Your task to perform on an android device: open app "Indeed Job Search" (install if not already installed) Image 0: 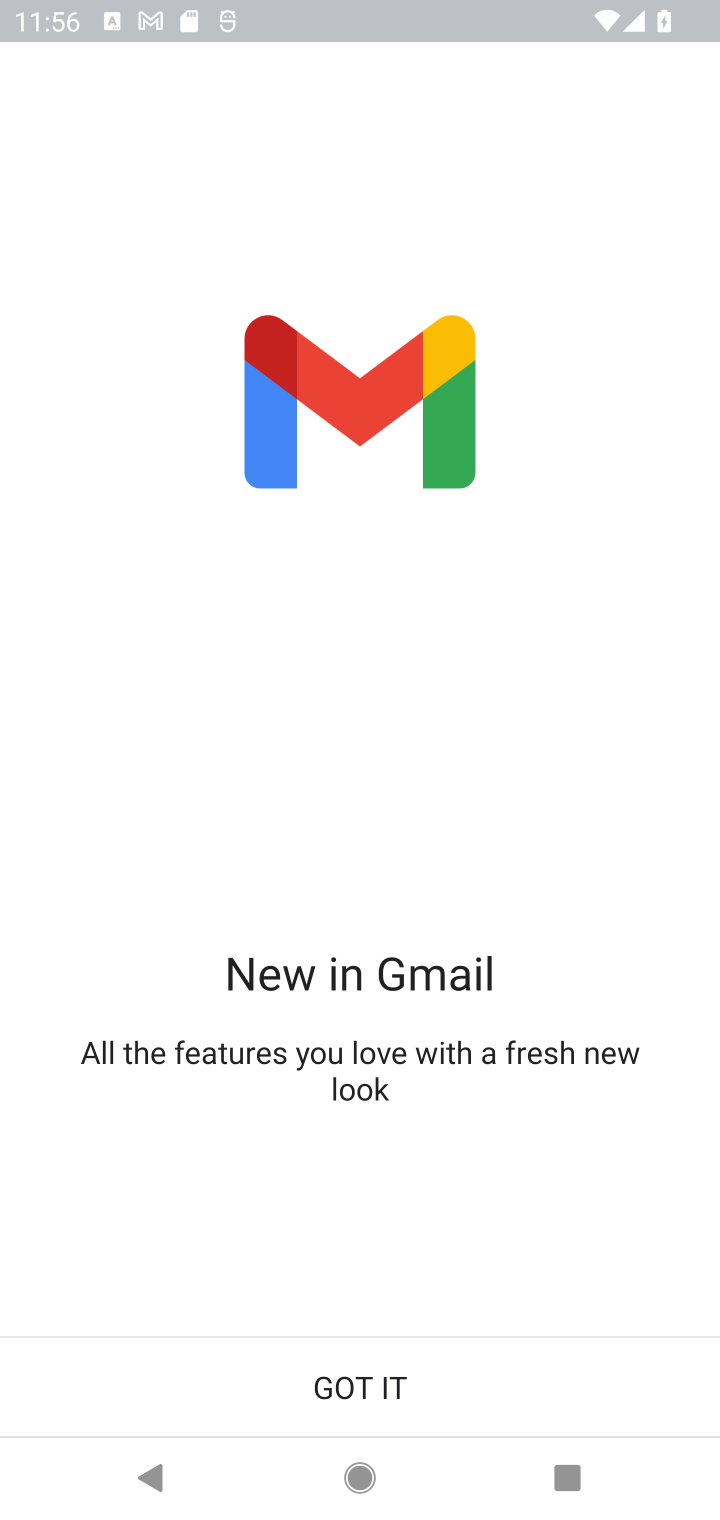
Step 0: press home button
Your task to perform on an android device: open app "Indeed Job Search" (install if not already installed) Image 1: 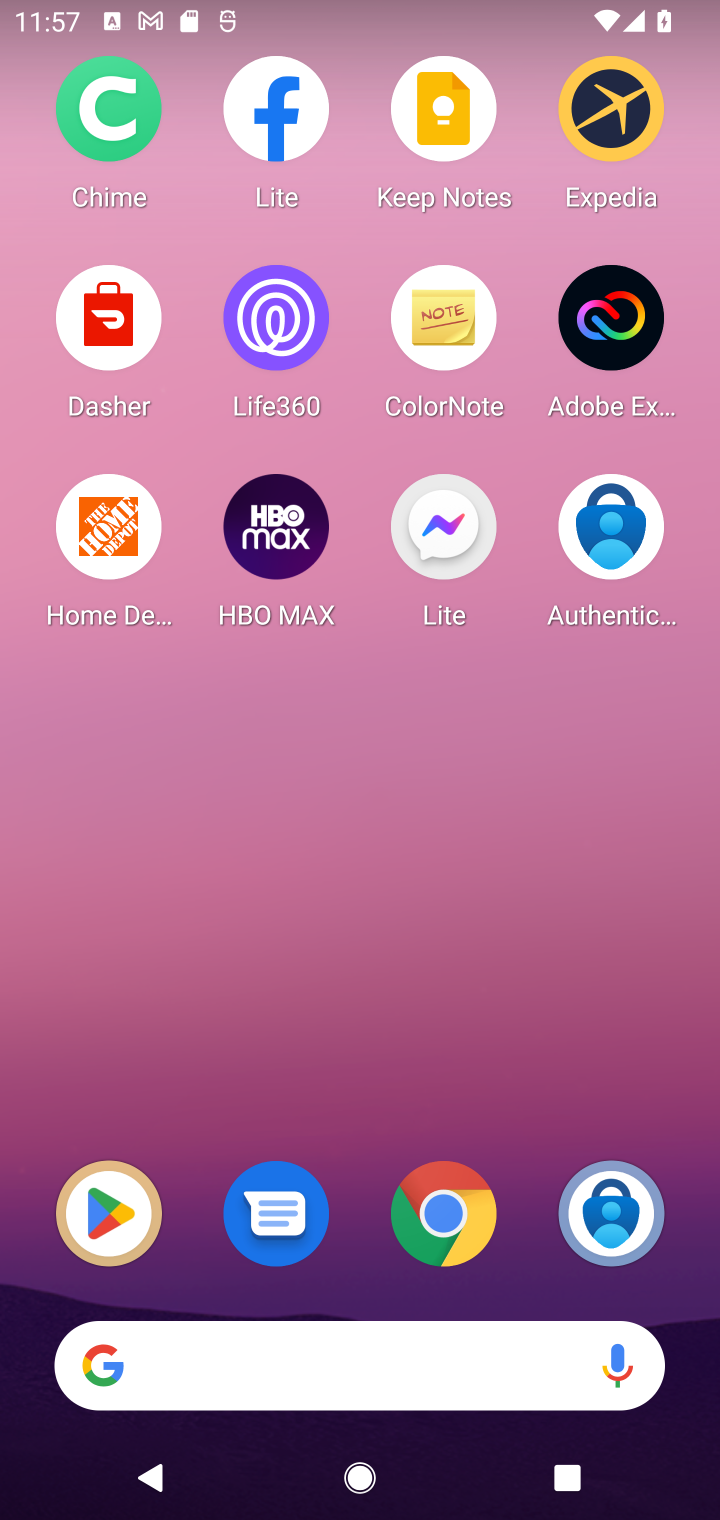
Step 1: click (99, 1229)
Your task to perform on an android device: open app "Indeed Job Search" (install if not already installed) Image 2: 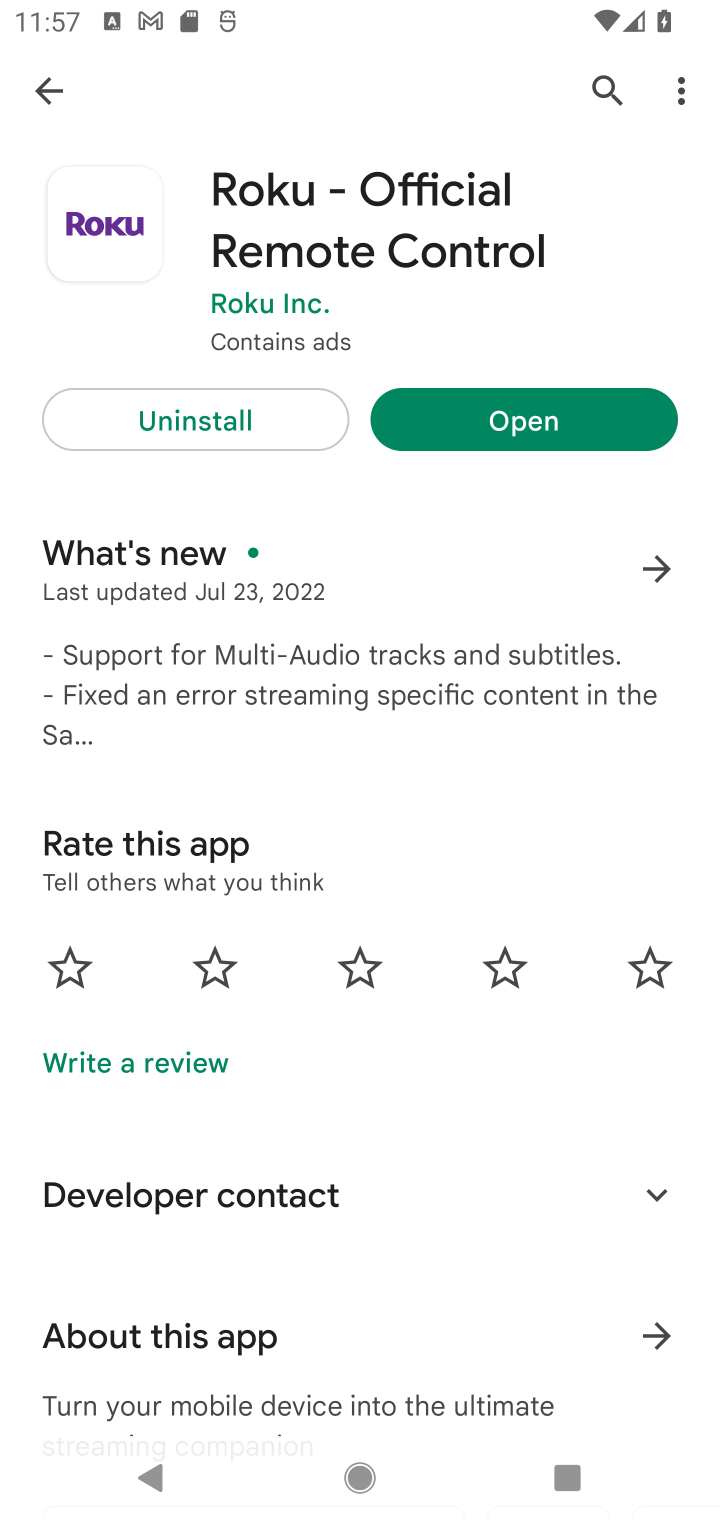
Step 2: click (53, 80)
Your task to perform on an android device: open app "Indeed Job Search" (install if not already installed) Image 3: 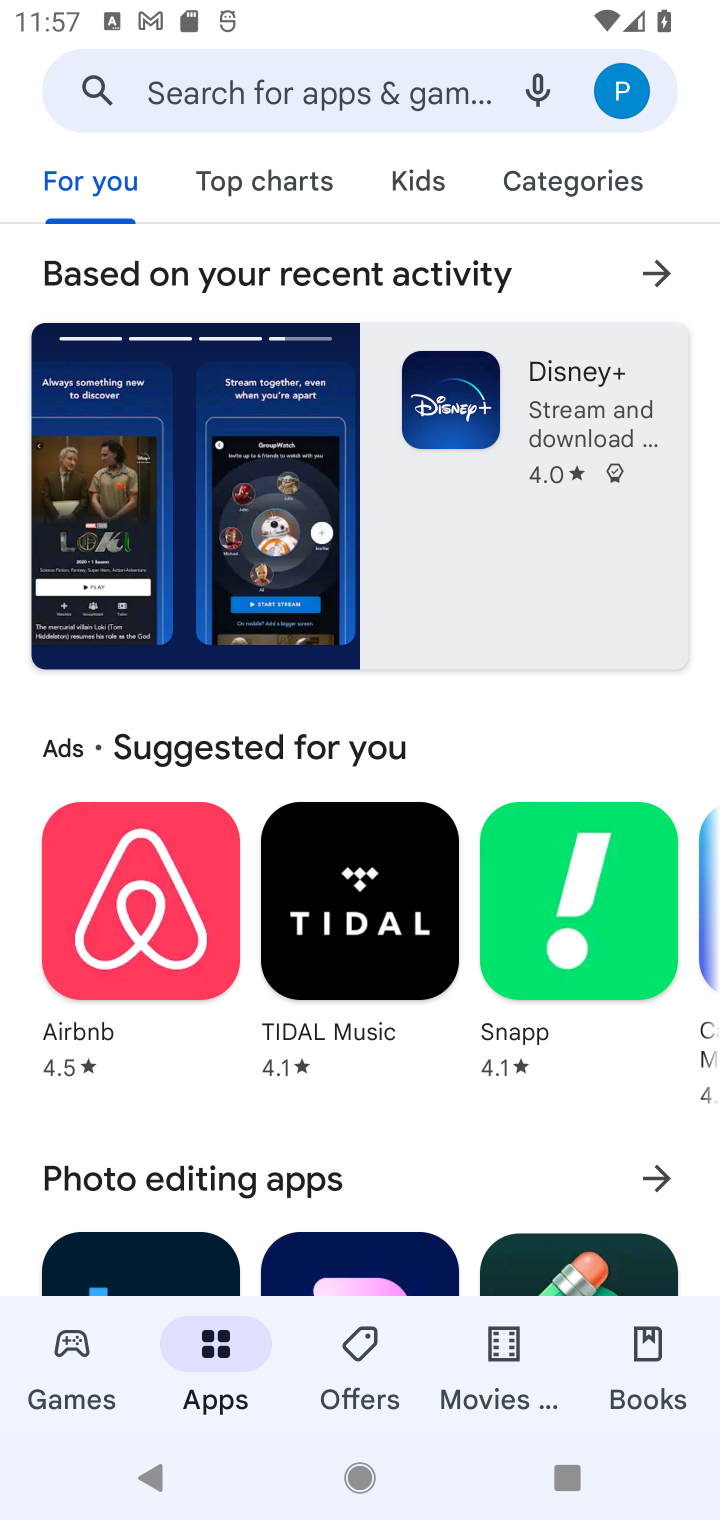
Step 3: click (176, 106)
Your task to perform on an android device: open app "Indeed Job Search" (install if not already installed) Image 4: 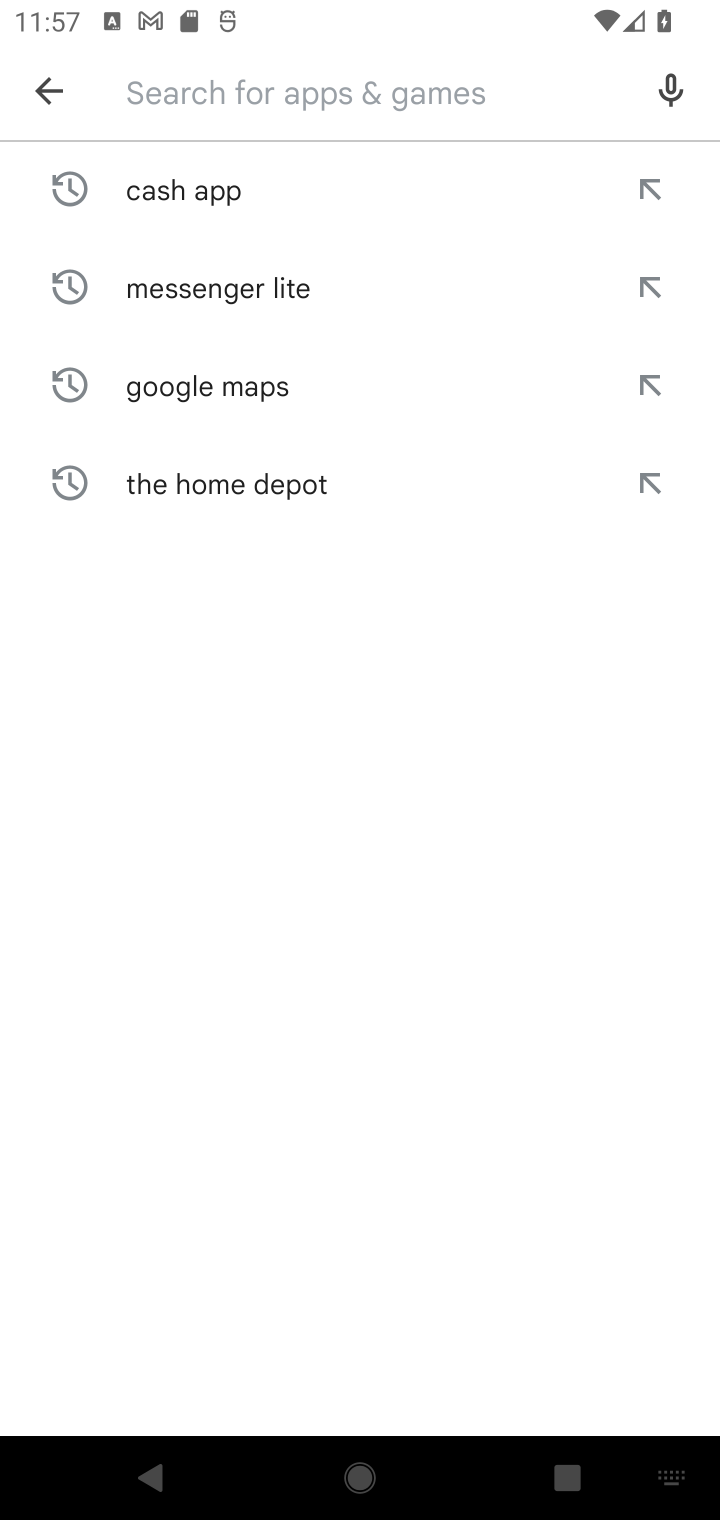
Step 4: type "Indeed Job Search"
Your task to perform on an android device: open app "Indeed Job Search" (install if not already installed) Image 5: 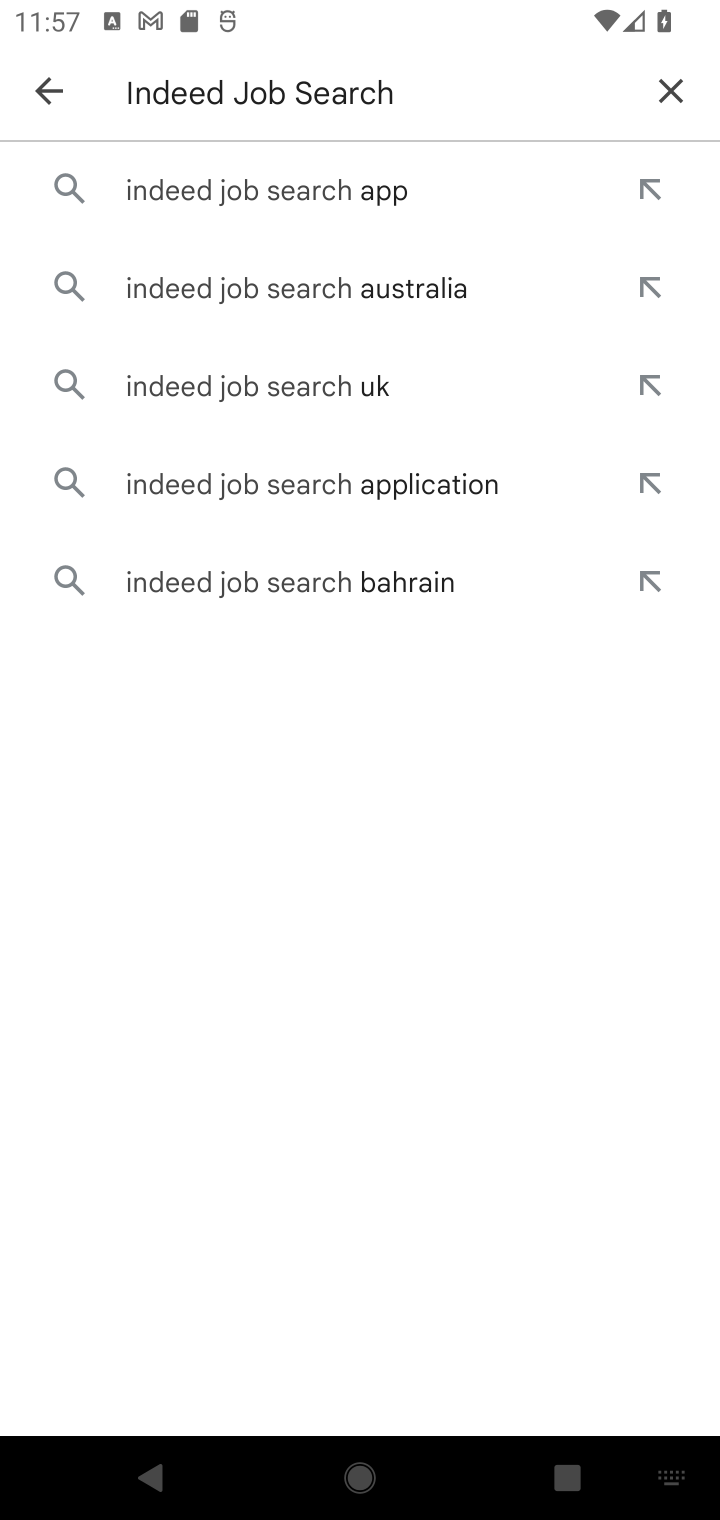
Step 5: click (351, 184)
Your task to perform on an android device: open app "Indeed Job Search" (install if not already installed) Image 6: 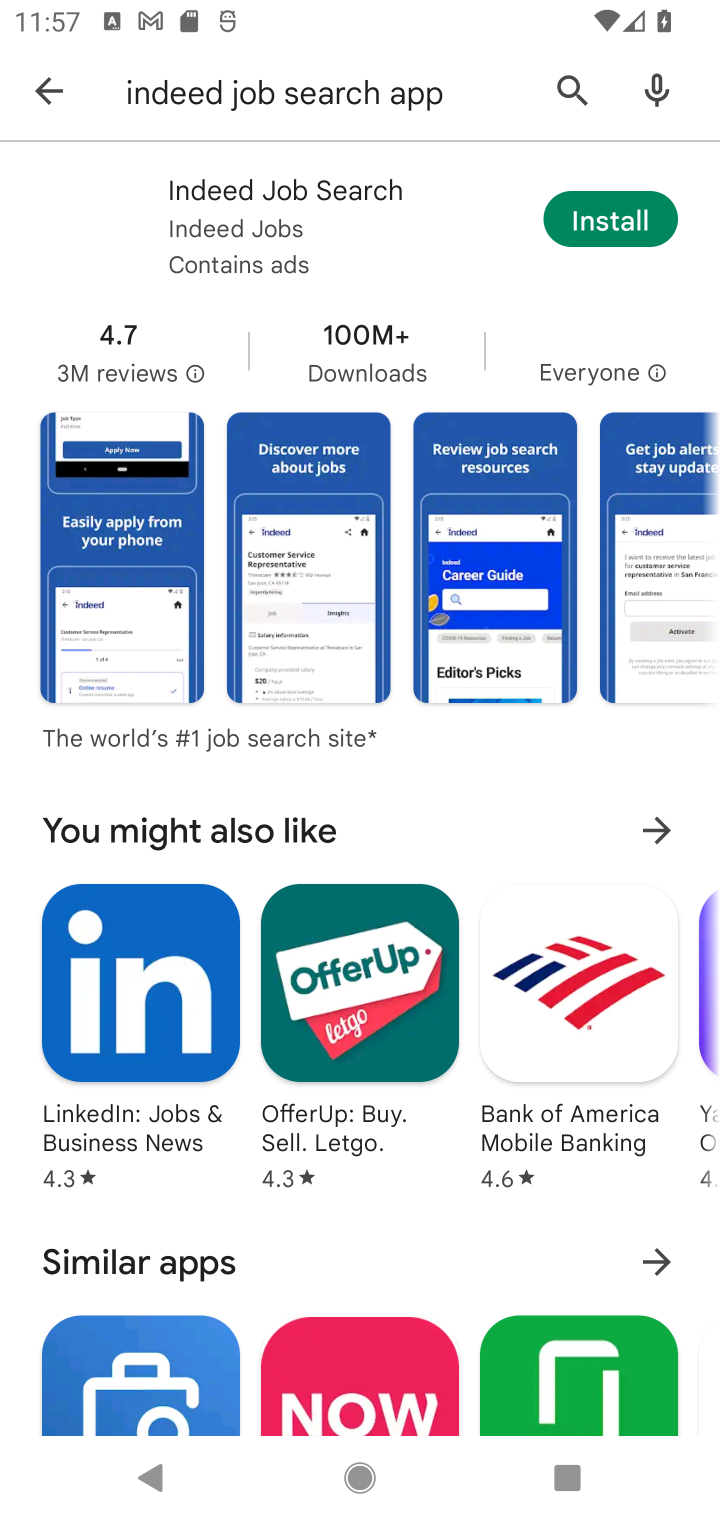
Step 6: click (607, 205)
Your task to perform on an android device: open app "Indeed Job Search" (install if not already installed) Image 7: 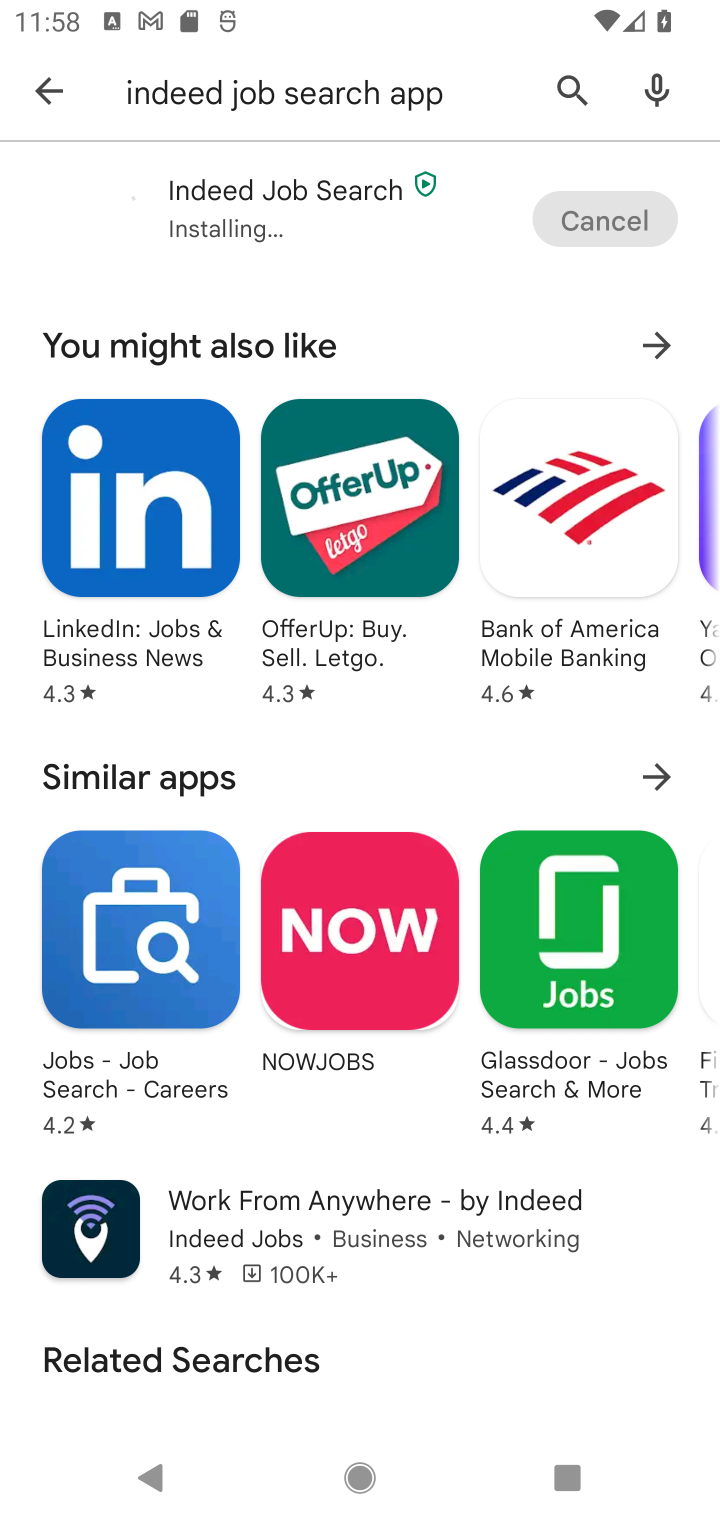
Step 7: task complete